Your task to perform on an android device: toggle javascript in the chrome app Image 0: 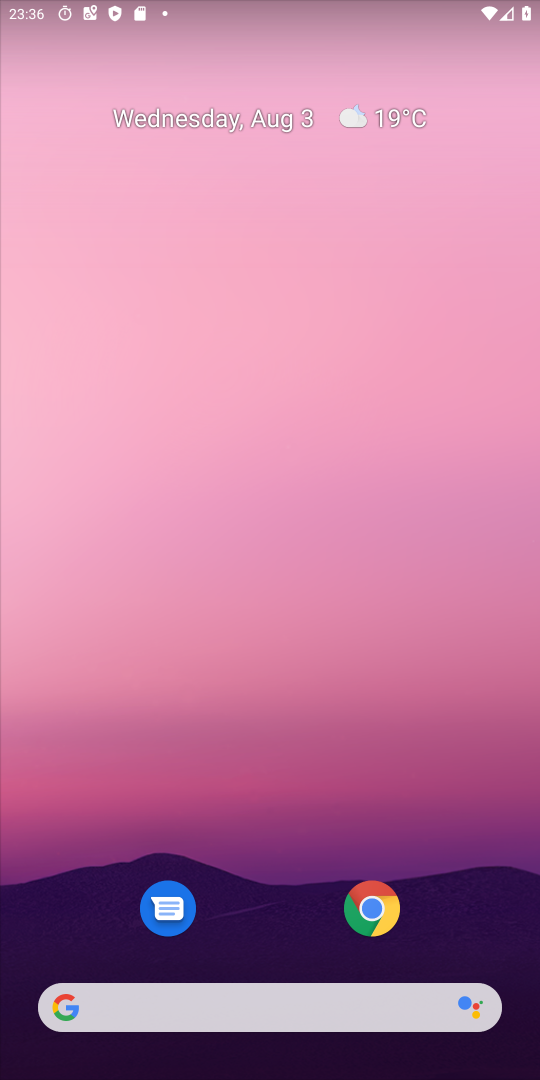
Step 0: press home button
Your task to perform on an android device: toggle javascript in the chrome app Image 1: 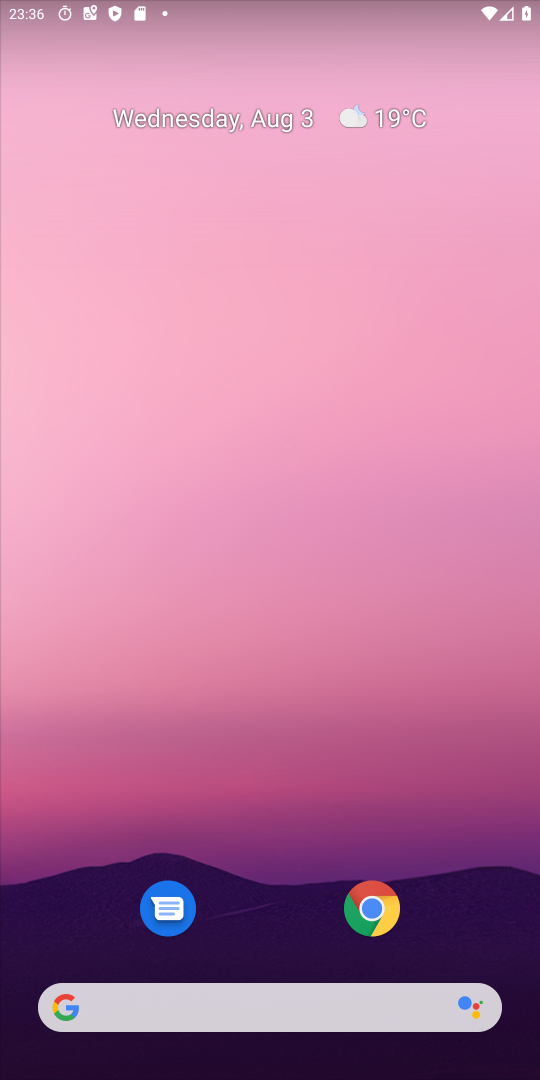
Step 1: drag from (354, 1041) to (200, 289)
Your task to perform on an android device: toggle javascript in the chrome app Image 2: 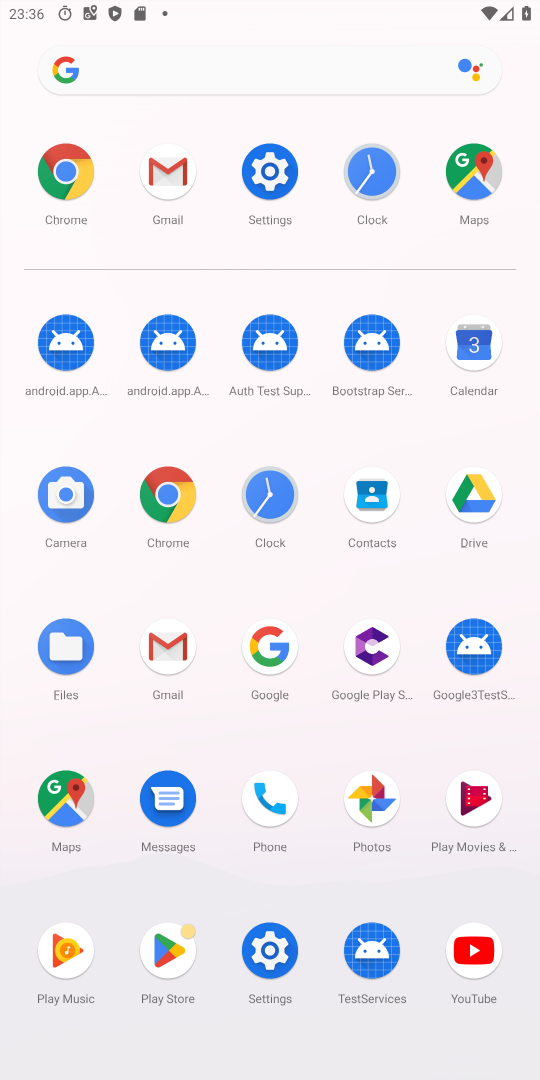
Step 2: click (74, 156)
Your task to perform on an android device: toggle javascript in the chrome app Image 3: 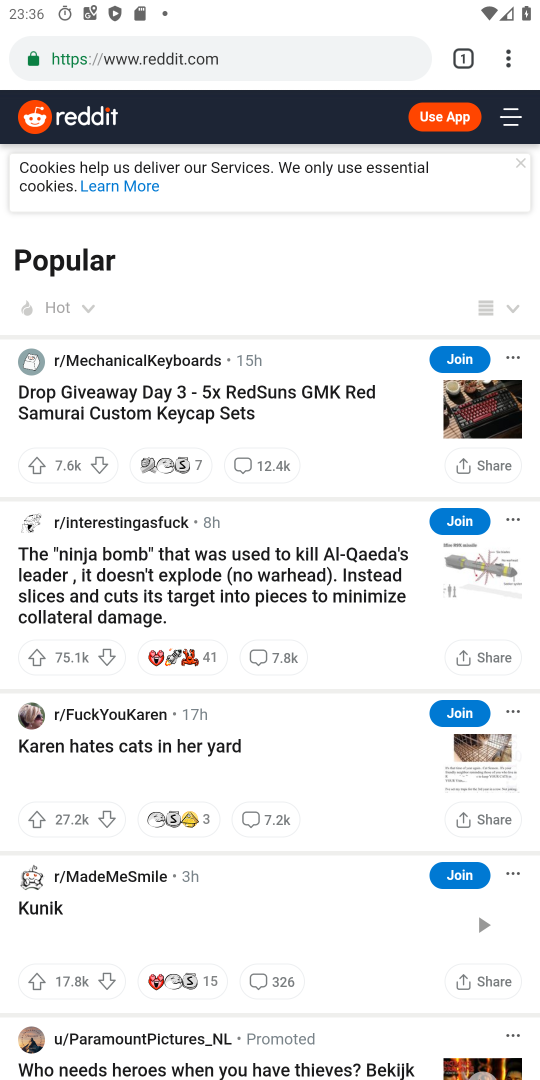
Step 3: click (517, 66)
Your task to perform on an android device: toggle javascript in the chrome app Image 4: 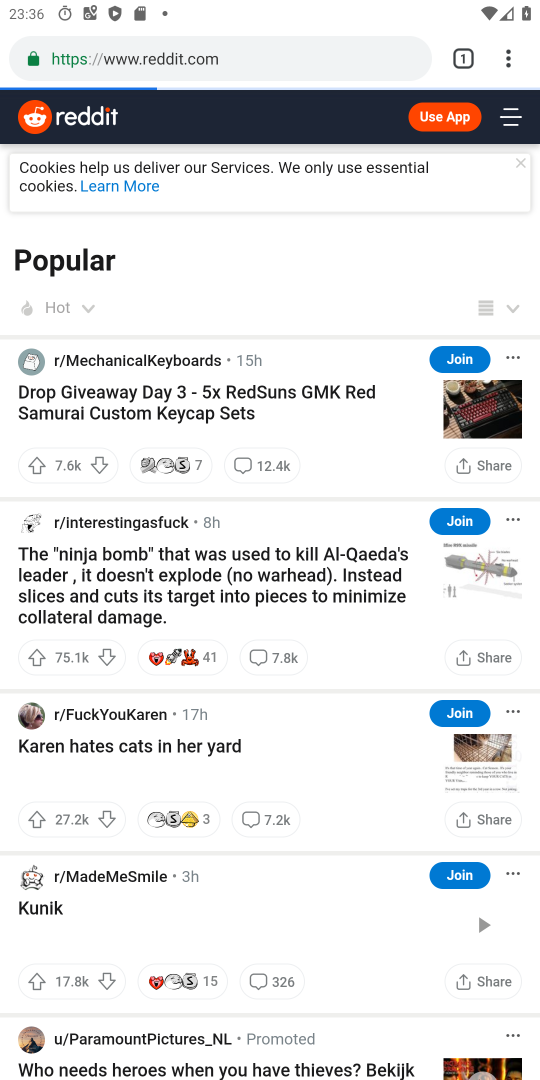
Step 4: click (496, 71)
Your task to perform on an android device: toggle javascript in the chrome app Image 5: 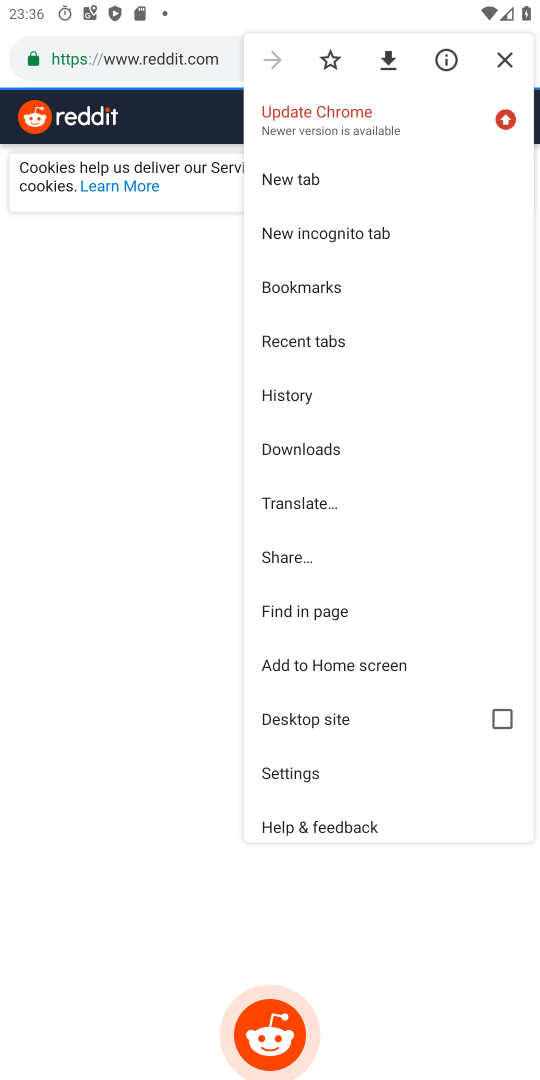
Step 5: click (313, 757)
Your task to perform on an android device: toggle javascript in the chrome app Image 6: 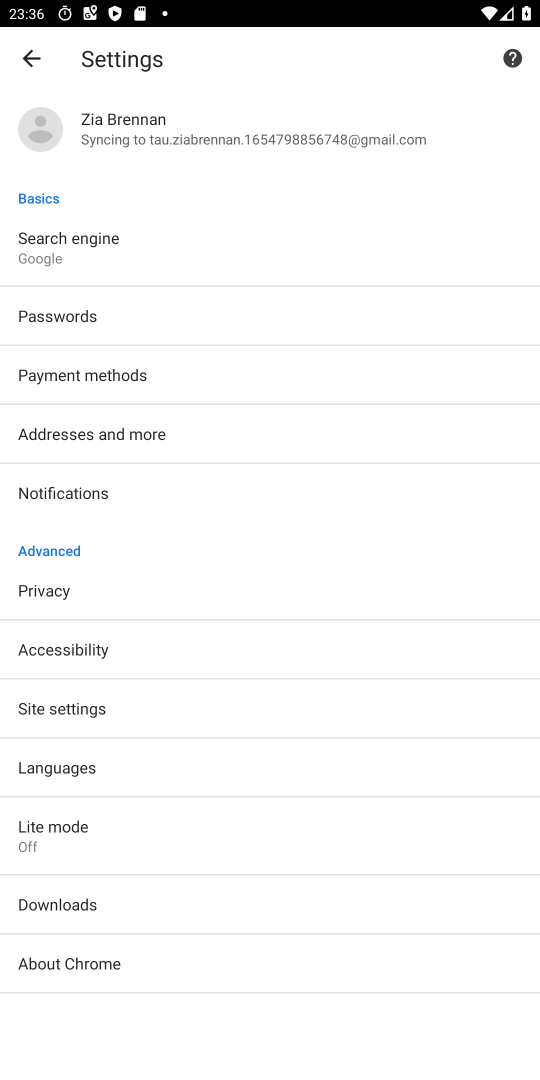
Step 6: click (116, 717)
Your task to perform on an android device: toggle javascript in the chrome app Image 7: 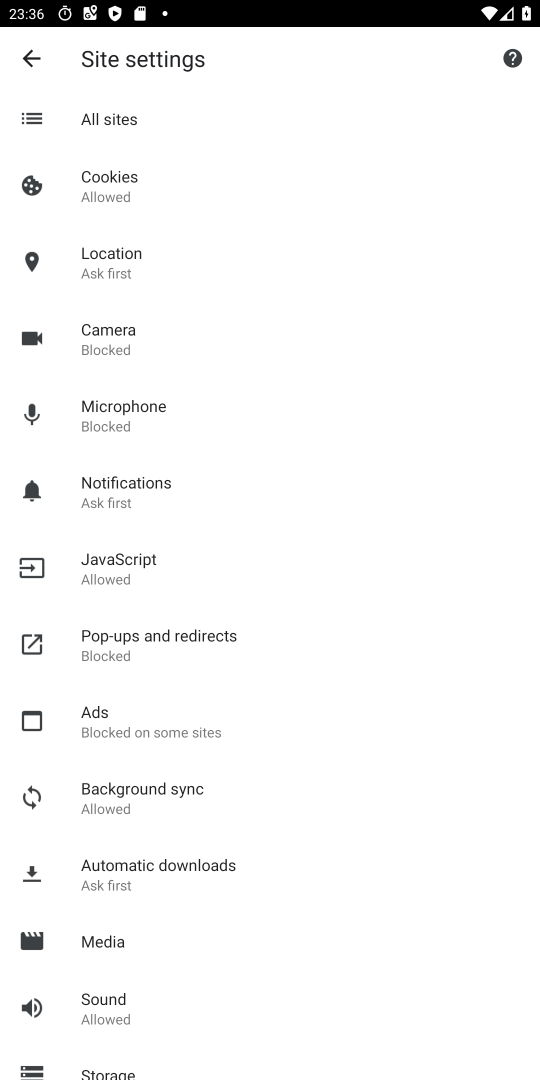
Step 7: click (203, 573)
Your task to perform on an android device: toggle javascript in the chrome app Image 8: 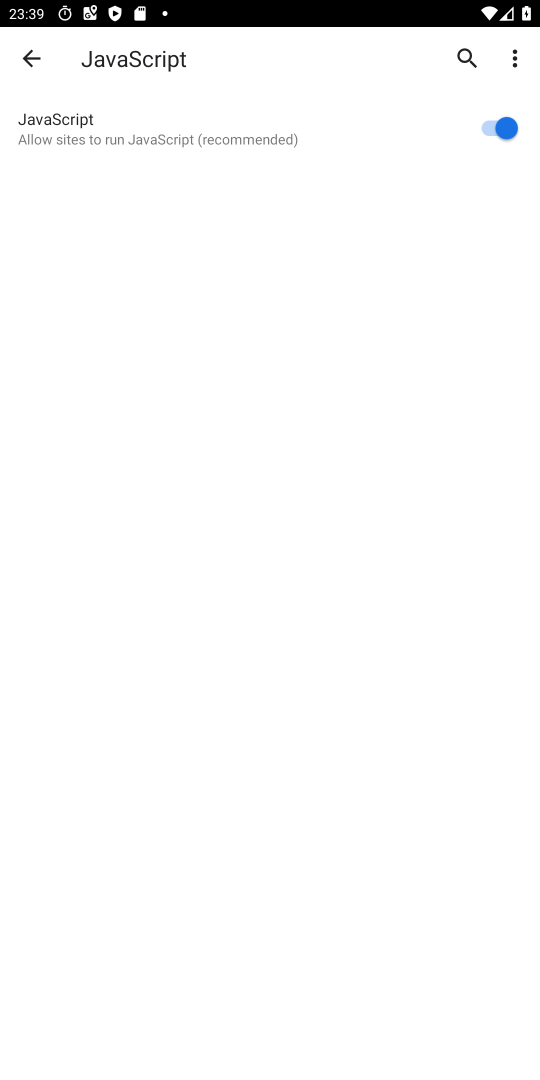
Step 8: task complete